Your task to perform on an android device: Open Maps and search for coffee Image 0: 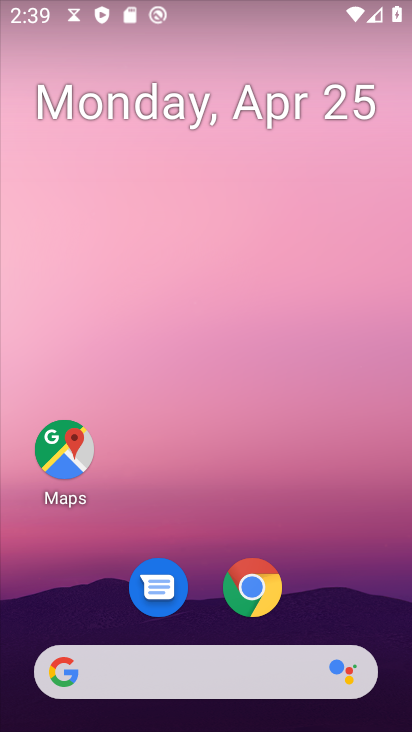
Step 0: click (68, 461)
Your task to perform on an android device: Open Maps and search for coffee Image 1: 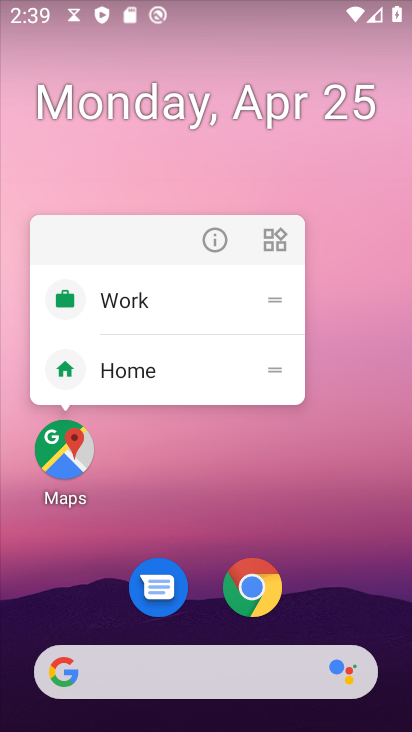
Step 1: click (208, 255)
Your task to perform on an android device: Open Maps and search for coffee Image 2: 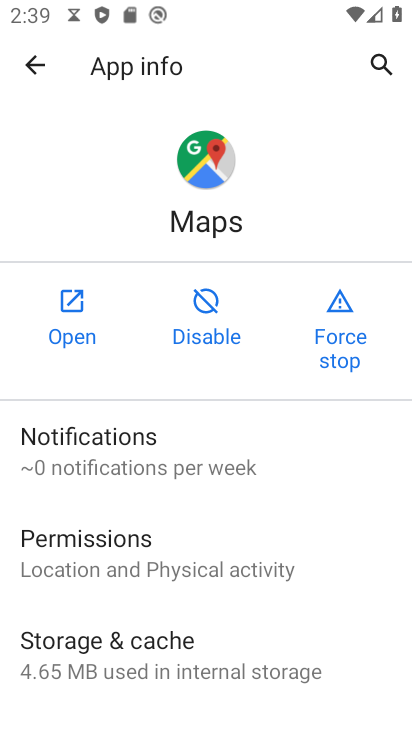
Step 2: click (53, 318)
Your task to perform on an android device: Open Maps and search for coffee Image 3: 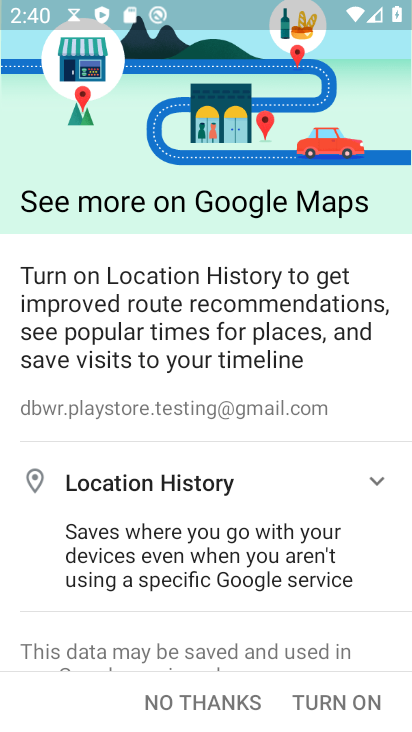
Step 3: click (247, 693)
Your task to perform on an android device: Open Maps and search for coffee Image 4: 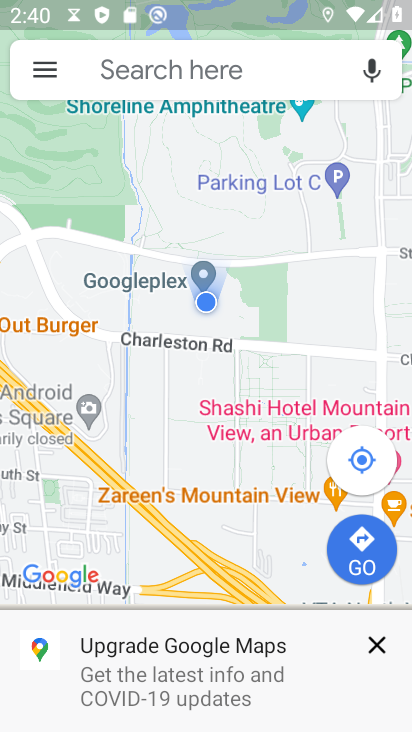
Step 4: click (177, 70)
Your task to perform on an android device: Open Maps and search for coffee Image 5: 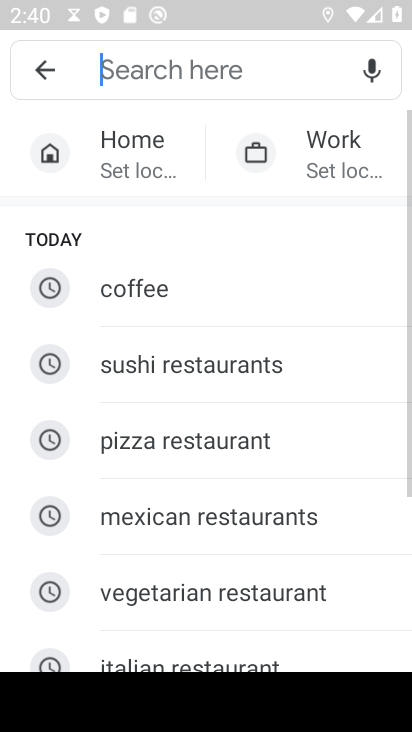
Step 5: click (166, 295)
Your task to perform on an android device: Open Maps and search for coffee Image 6: 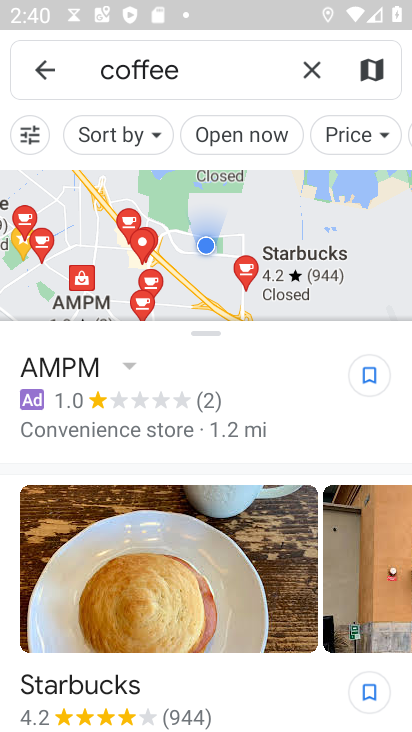
Step 6: task complete